Your task to perform on an android device: open chrome and create a bookmark for the current page Image 0: 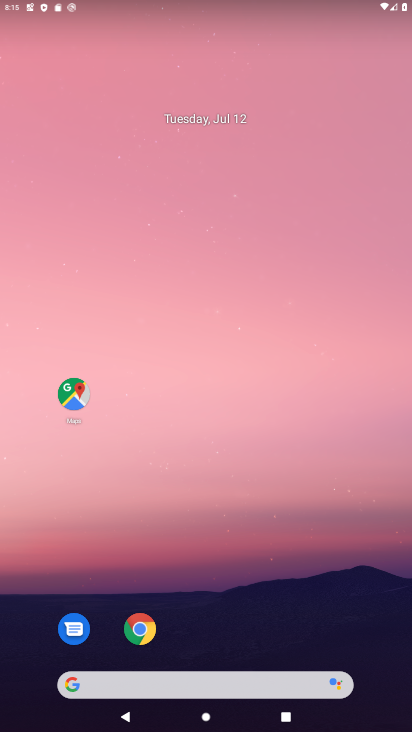
Step 0: drag from (235, 634) to (245, 242)
Your task to perform on an android device: open chrome and create a bookmark for the current page Image 1: 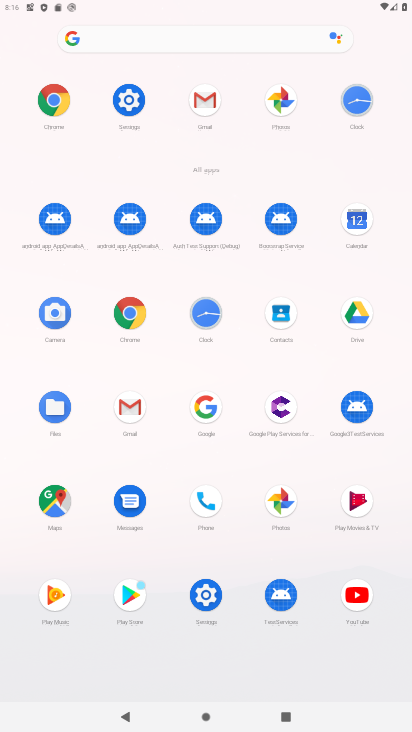
Step 1: click (59, 94)
Your task to perform on an android device: open chrome and create a bookmark for the current page Image 2: 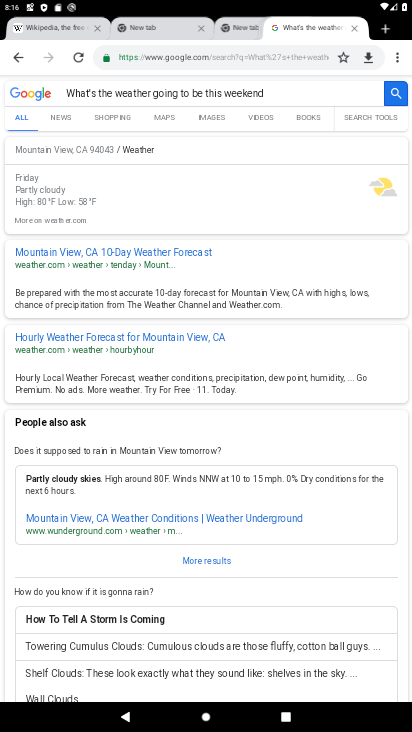
Step 2: click (393, 47)
Your task to perform on an android device: open chrome and create a bookmark for the current page Image 3: 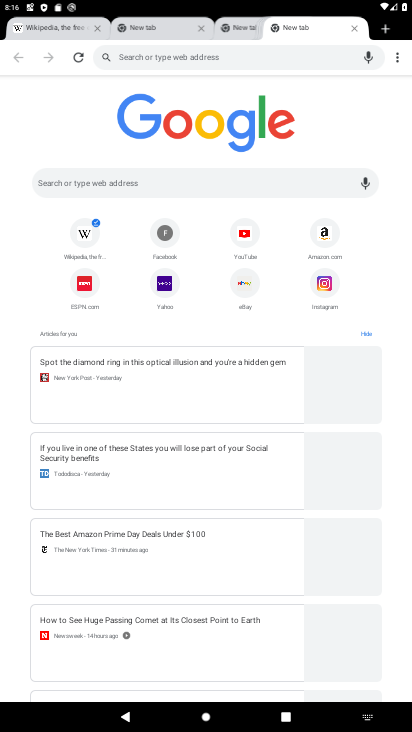
Step 3: click (399, 48)
Your task to perform on an android device: open chrome and create a bookmark for the current page Image 4: 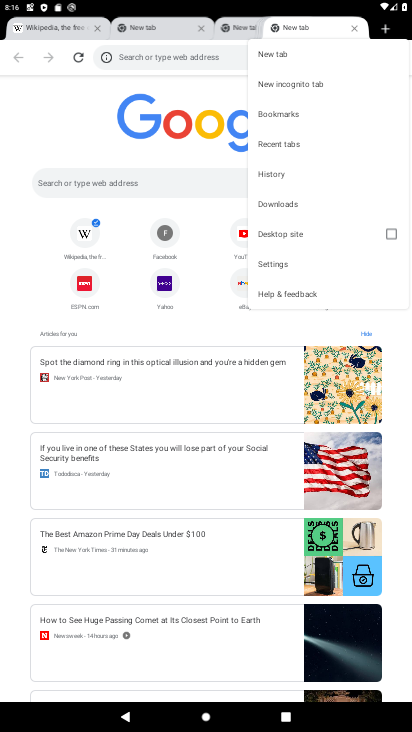
Step 4: click (287, 110)
Your task to perform on an android device: open chrome and create a bookmark for the current page Image 5: 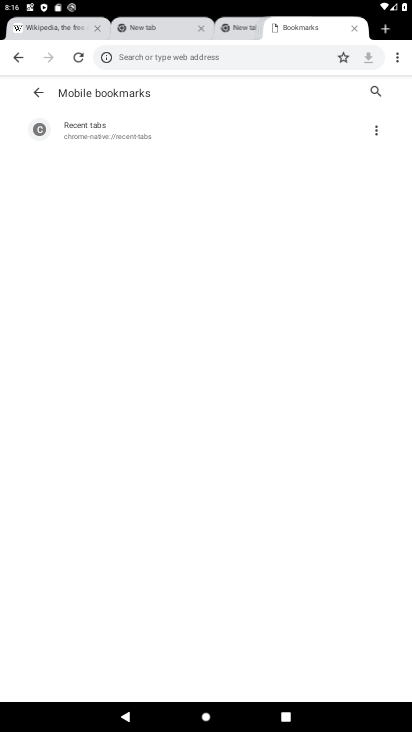
Step 5: click (335, 58)
Your task to perform on an android device: open chrome and create a bookmark for the current page Image 6: 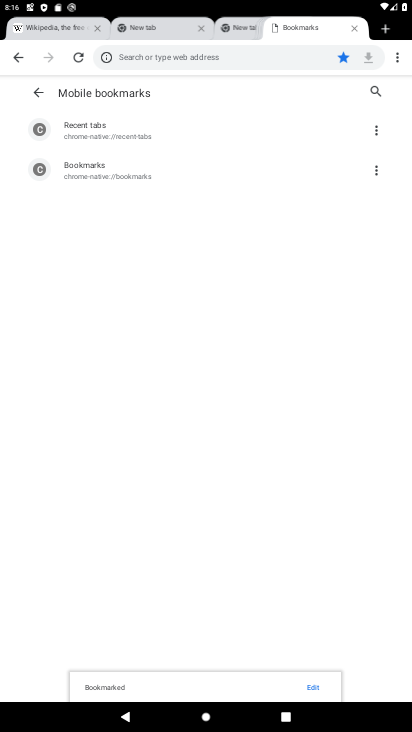
Step 6: task complete